Your task to perform on an android device: toggle notifications settings in the gmail app Image 0: 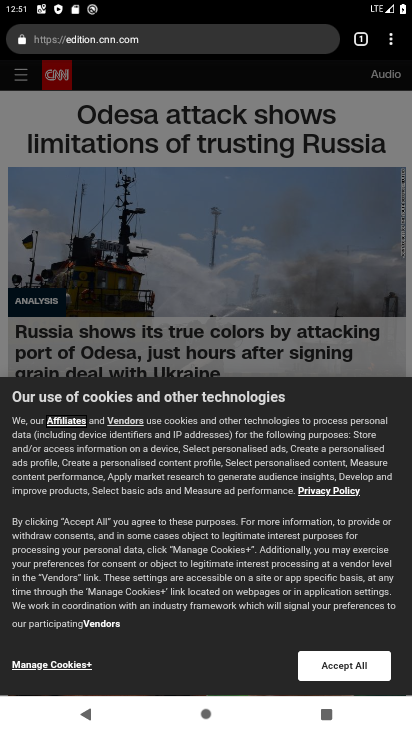
Step 0: press home button
Your task to perform on an android device: toggle notifications settings in the gmail app Image 1: 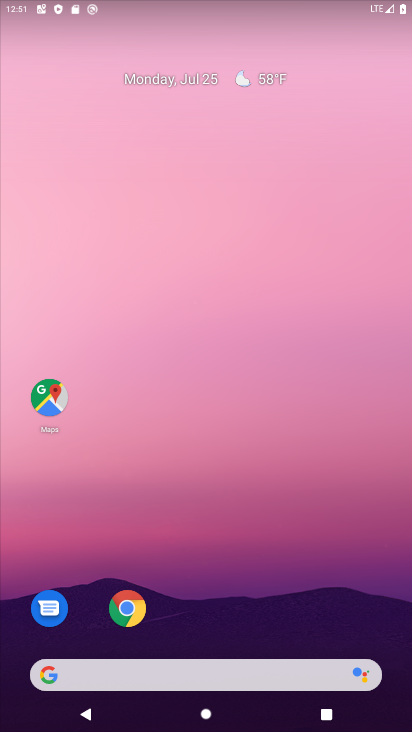
Step 1: drag from (177, 669) to (242, 205)
Your task to perform on an android device: toggle notifications settings in the gmail app Image 2: 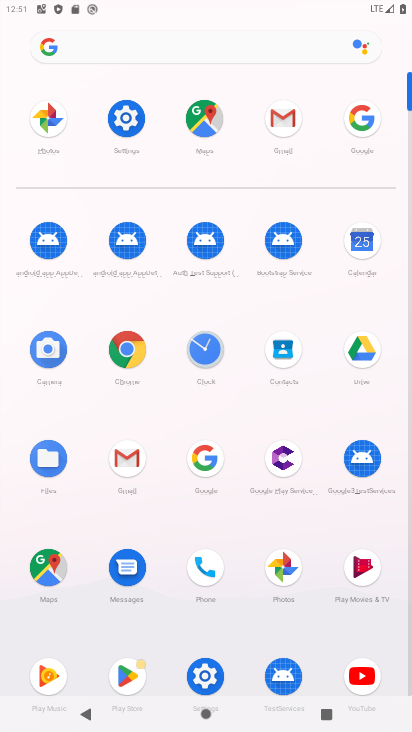
Step 2: click (282, 117)
Your task to perform on an android device: toggle notifications settings in the gmail app Image 3: 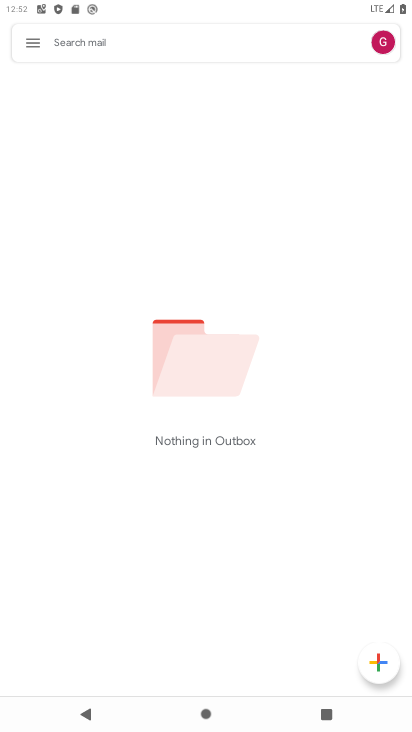
Step 3: click (32, 42)
Your task to perform on an android device: toggle notifications settings in the gmail app Image 4: 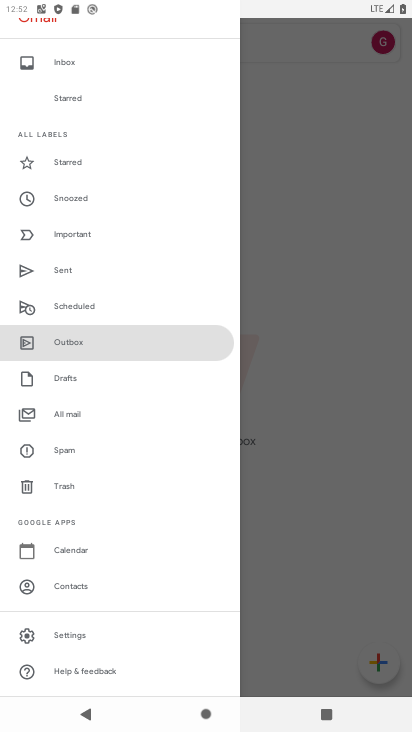
Step 4: click (74, 631)
Your task to perform on an android device: toggle notifications settings in the gmail app Image 5: 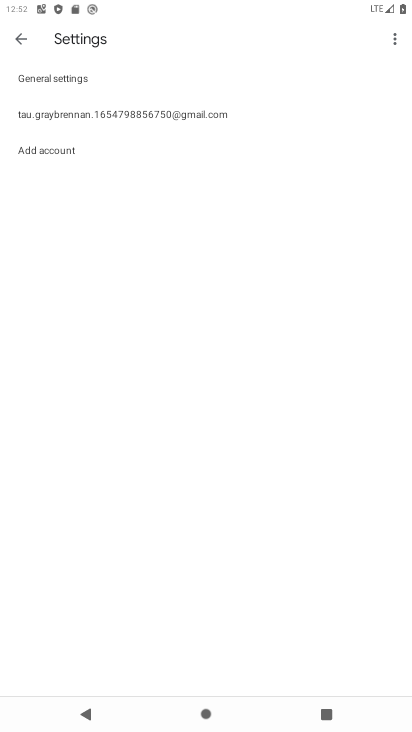
Step 5: click (147, 112)
Your task to perform on an android device: toggle notifications settings in the gmail app Image 6: 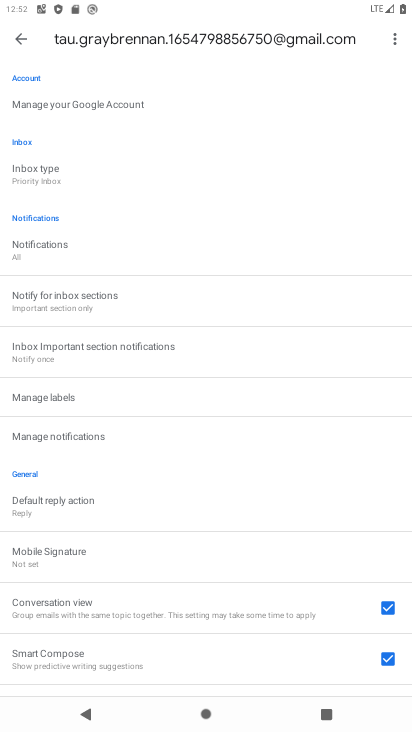
Step 6: click (54, 441)
Your task to perform on an android device: toggle notifications settings in the gmail app Image 7: 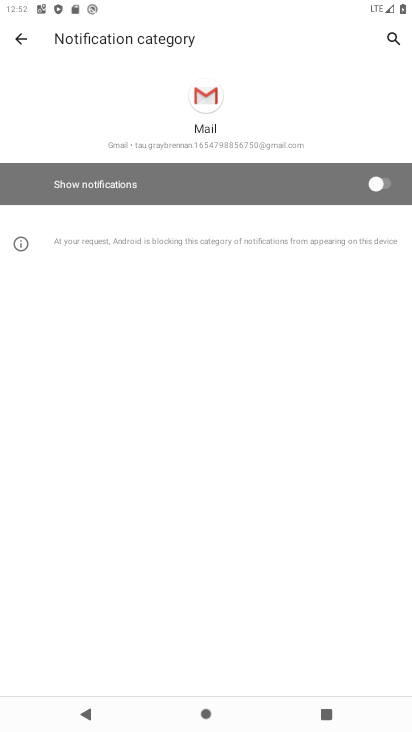
Step 7: click (378, 190)
Your task to perform on an android device: toggle notifications settings in the gmail app Image 8: 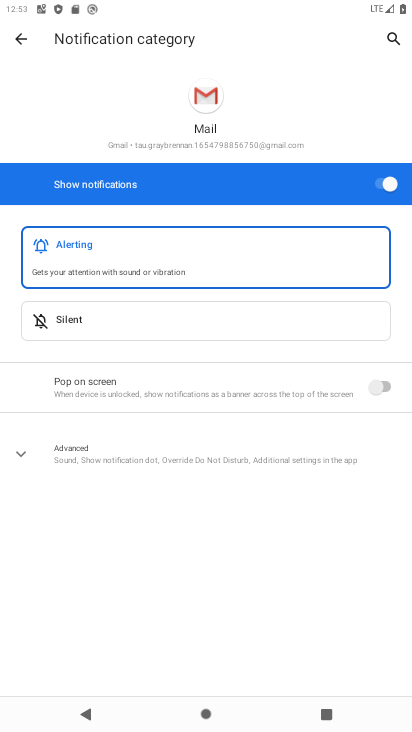
Step 8: task complete